Your task to perform on an android device: Go to wifi settings Image 0: 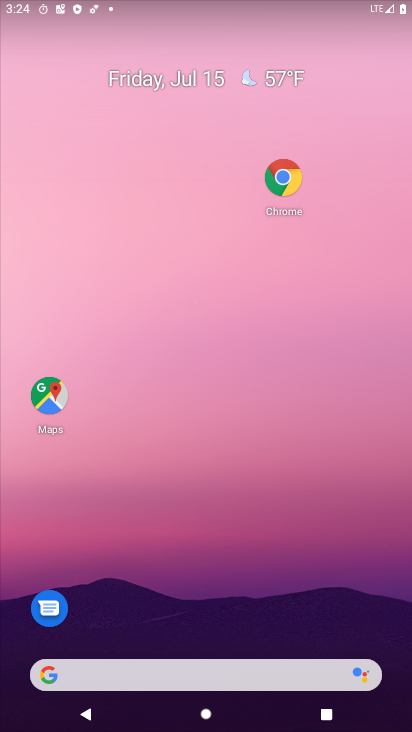
Step 0: drag from (315, 551) to (275, 424)
Your task to perform on an android device: Go to wifi settings Image 1: 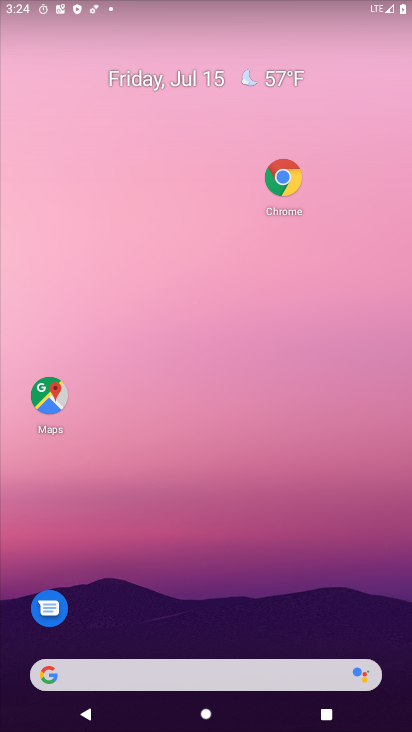
Step 1: drag from (196, 10) to (136, 381)
Your task to perform on an android device: Go to wifi settings Image 2: 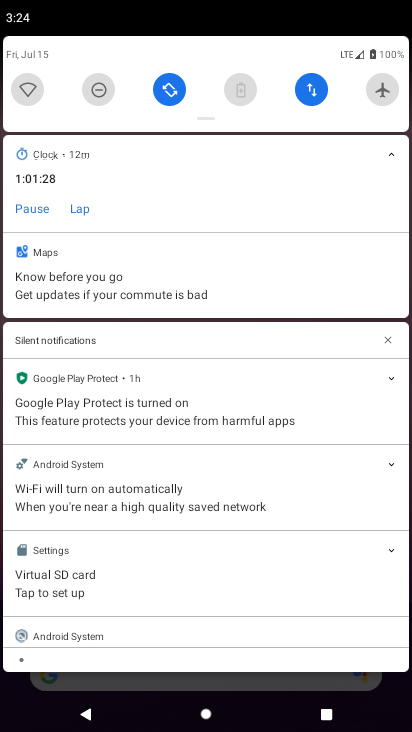
Step 2: click (16, 89)
Your task to perform on an android device: Go to wifi settings Image 3: 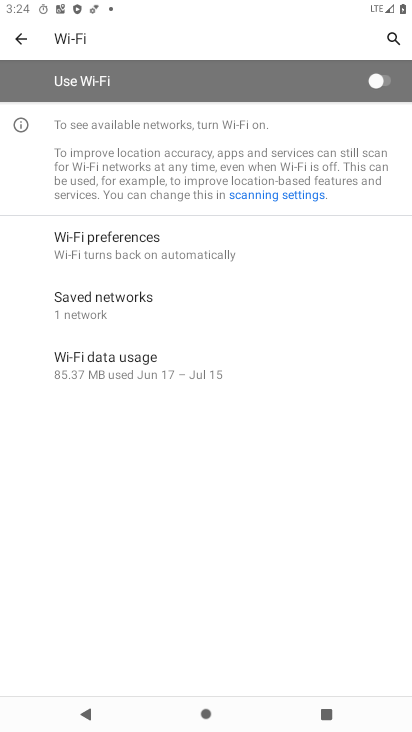
Step 3: task complete